Your task to perform on an android device: see tabs open on other devices in the chrome app Image 0: 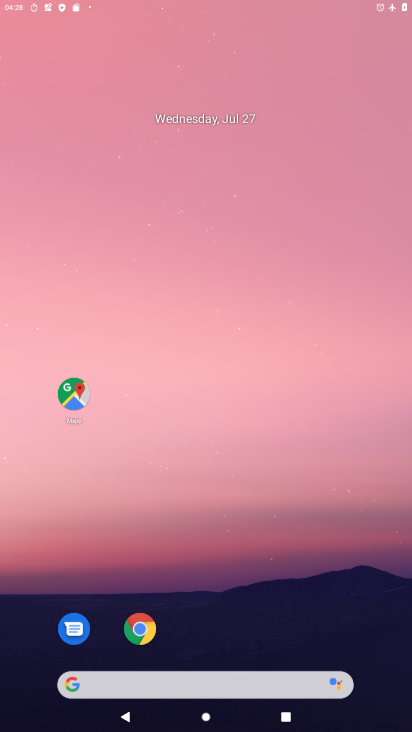
Step 0: drag from (298, 288) to (311, 134)
Your task to perform on an android device: see tabs open on other devices in the chrome app Image 1: 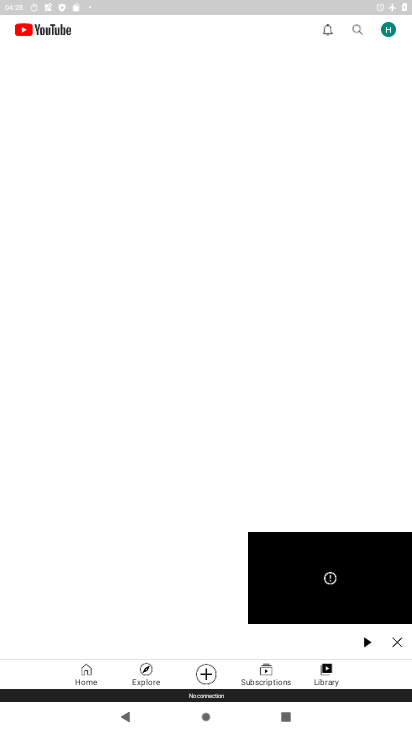
Step 1: press home button
Your task to perform on an android device: see tabs open on other devices in the chrome app Image 2: 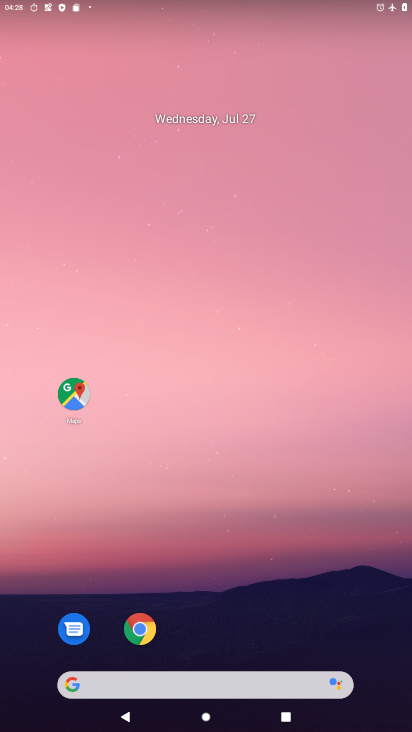
Step 2: drag from (298, 576) to (252, 66)
Your task to perform on an android device: see tabs open on other devices in the chrome app Image 3: 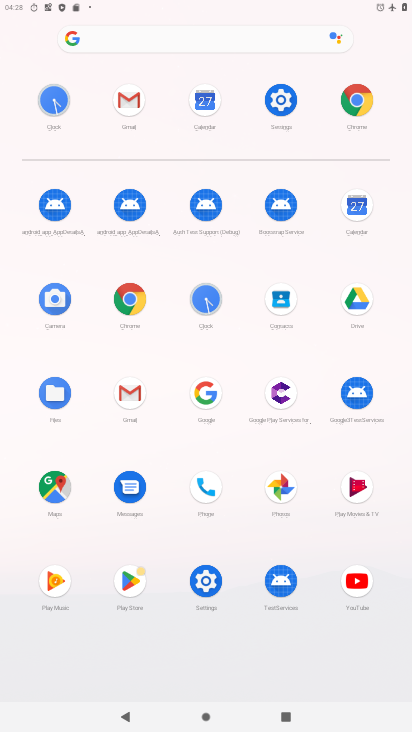
Step 3: click (355, 98)
Your task to perform on an android device: see tabs open on other devices in the chrome app Image 4: 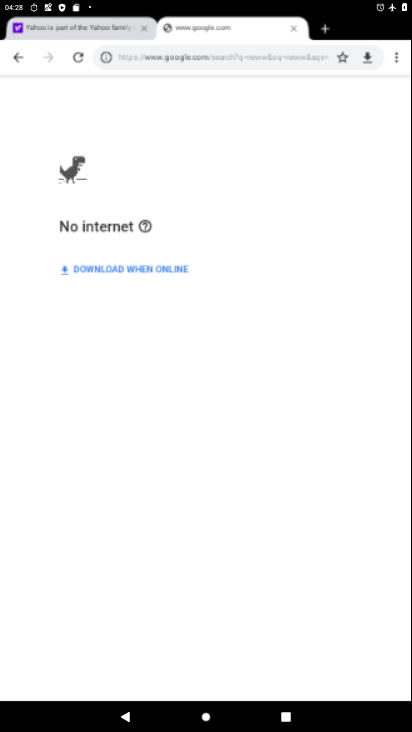
Step 4: task complete